Your task to perform on an android device: open a bookmark in the chrome app Image 0: 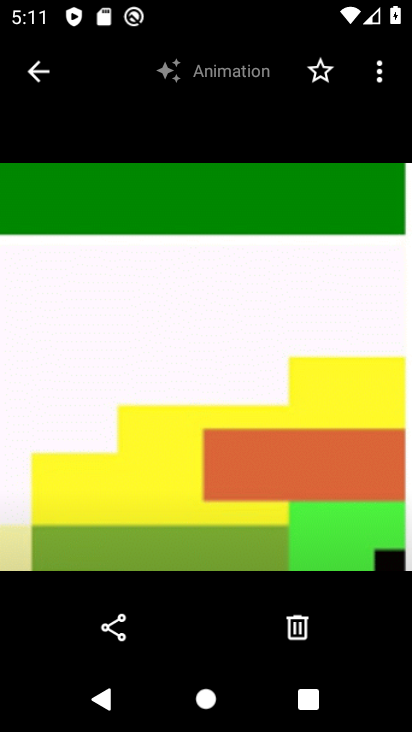
Step 0: press home button
Your task to perform on an android device: open a bookmark in the chrome app Image 1: 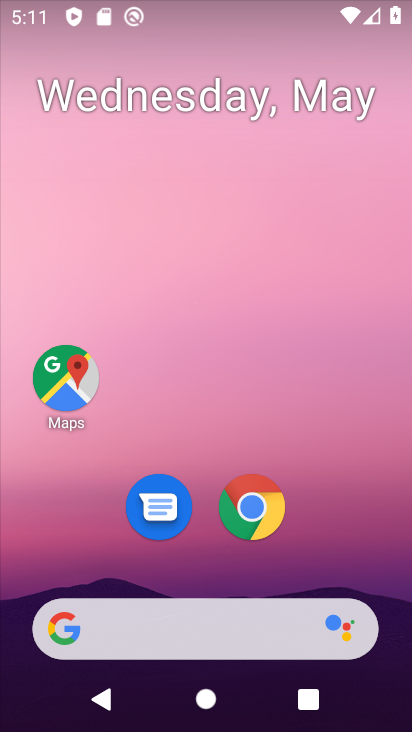
Step 1: click (252, 504)
Your task to perform on an android device: open a bookmark in the chrome app Image 2: 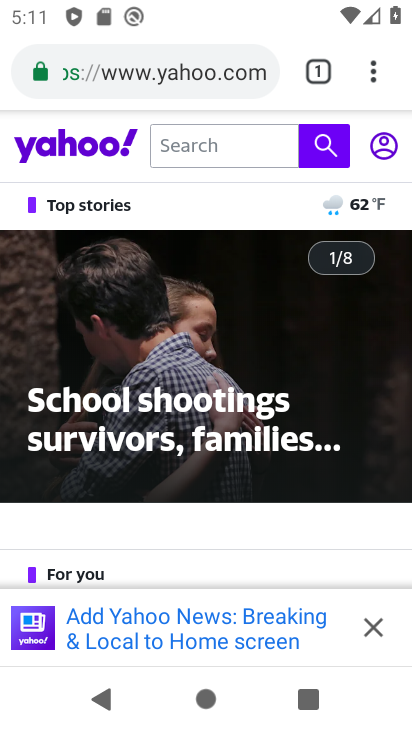
Step 2: click (371, 74)
Your task to perform on an android device: open a bookmark in the chrome app Image 3: 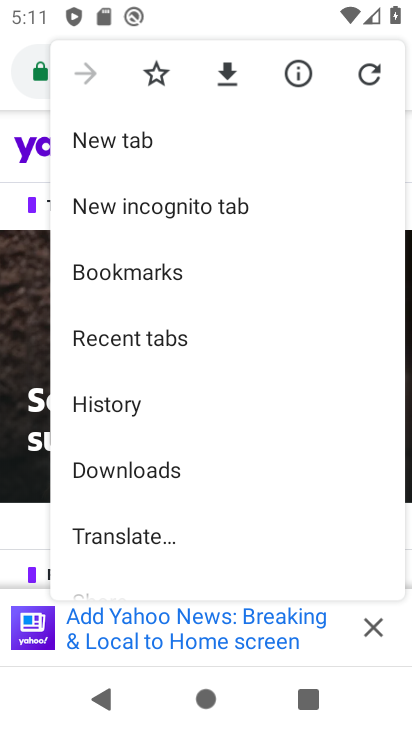
Step 3: click (158, 276)
Your task to perform on an android device: open a bookmark in the chrome app Image 4: 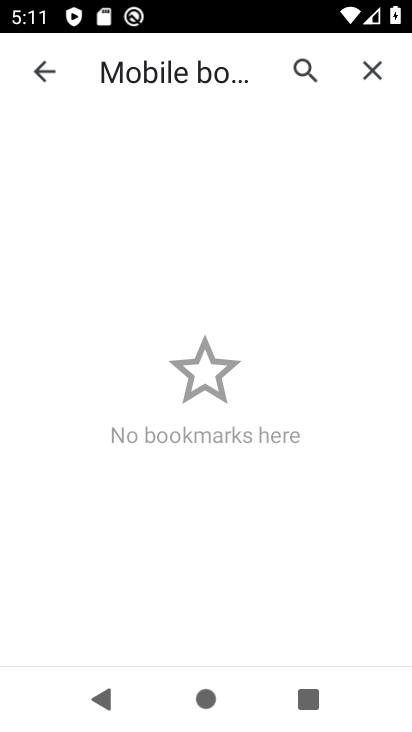
Step 4: task complete